Your task to perform on an android device: open chrome privacy settings Image 0: 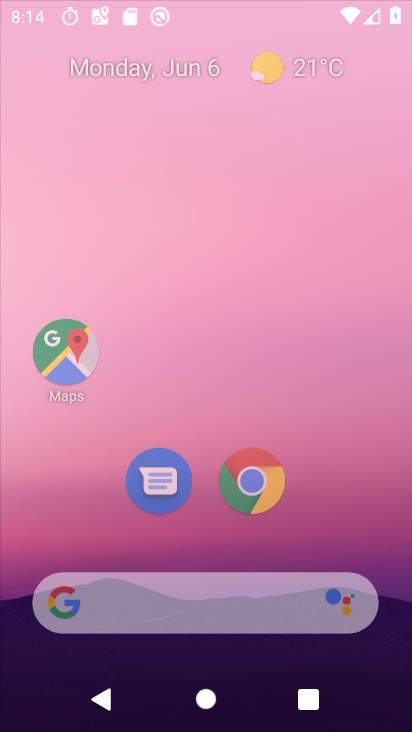
Step 0: press home button
Your task to perform on an android device: open chrome privacy settings Image 1: 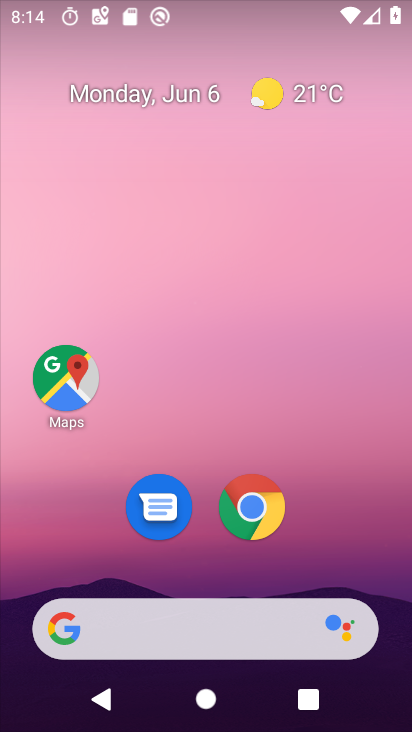
Step 1: click (261, 516)
Your task to perform on an android device: open chrome privacy settings Image 2: 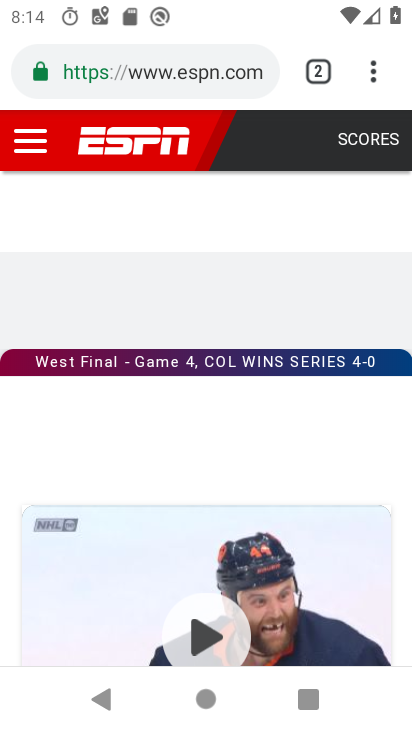
Step 2: drag from (376, 67) to (153, 494)
Your task to perform on an android device: open chrome privacy settings Image 3: 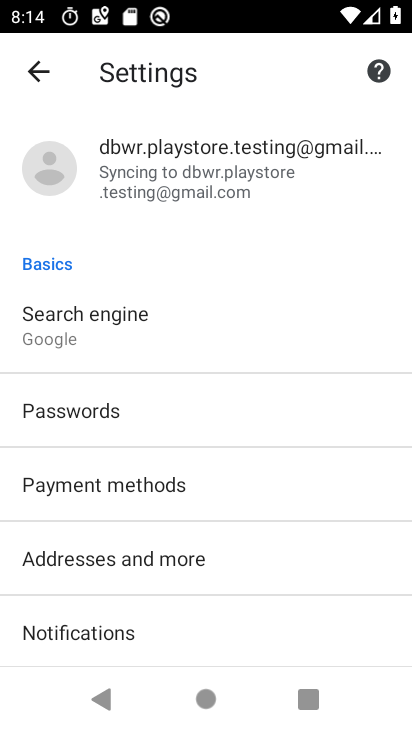
Step 3: drag from (214, 644) to (233, 238)
Your task to perform on an android device: open chrome privacy settings Image 4: 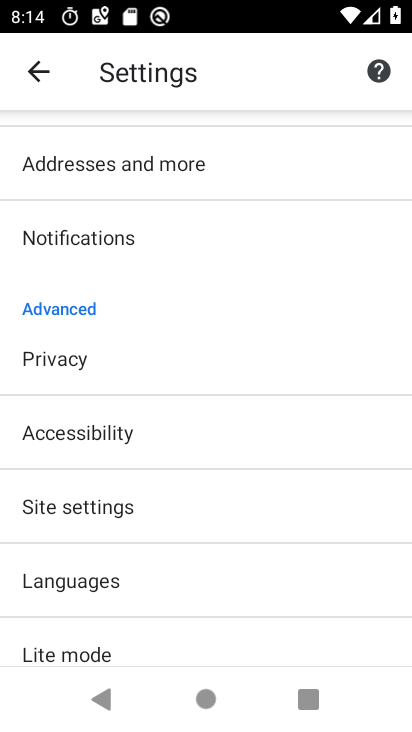
Step 4: click (67, 357)
Your task to perform on an android device: open chrome privacy settings Image 5: 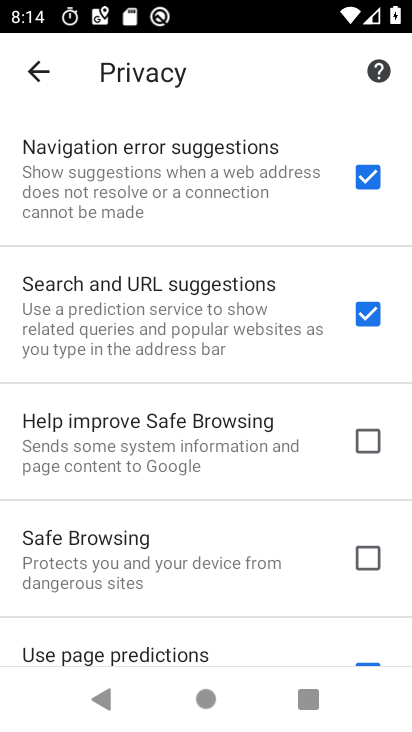
Step 5: task complete